Your task to perform on an android device: Go to CNN.com Image 0: 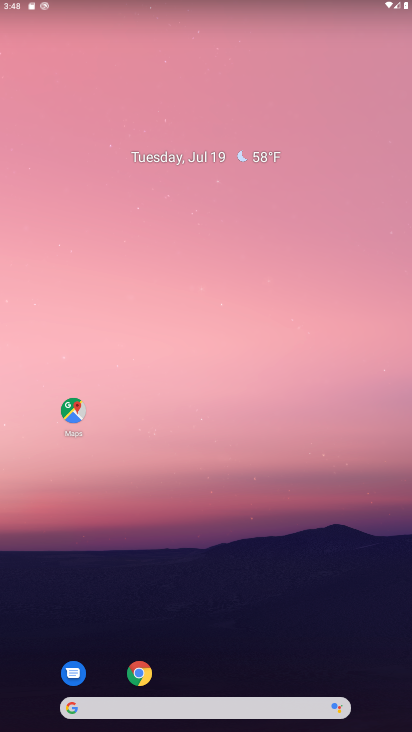
Step 0: drag from (209, 716) to (182, 22)
Your task to perform on an android device: Go to CNN.com Image 1: 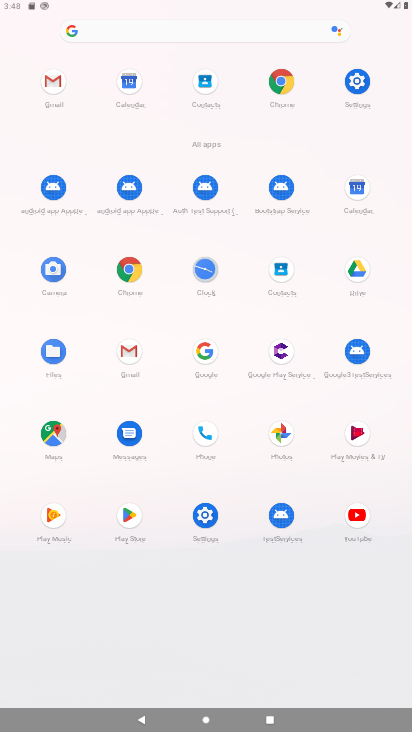
Step 1: click (132, 273)
Your task to perform on an android device: Go to CNN.com Image 2: 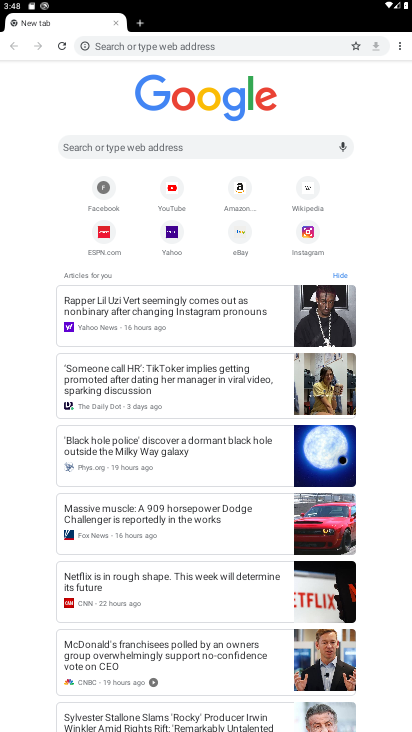
Step 2: type "cnn.com"
Your task to perform on an android device: Go to CNN.com Image 3: 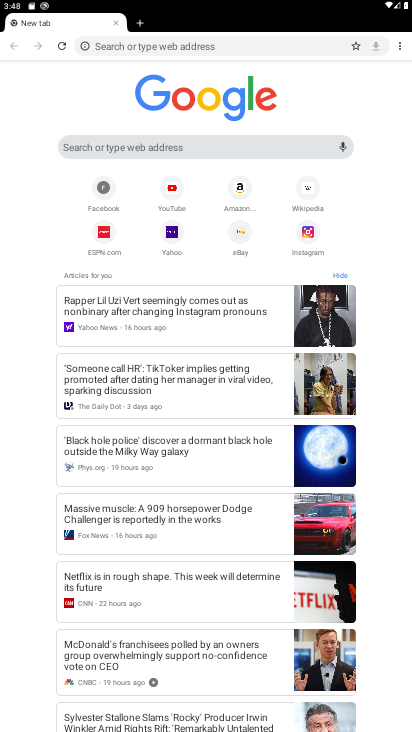
Step 3: click (188, 53)
Your task to perform on an android device: Go to CNN.com Image 4: 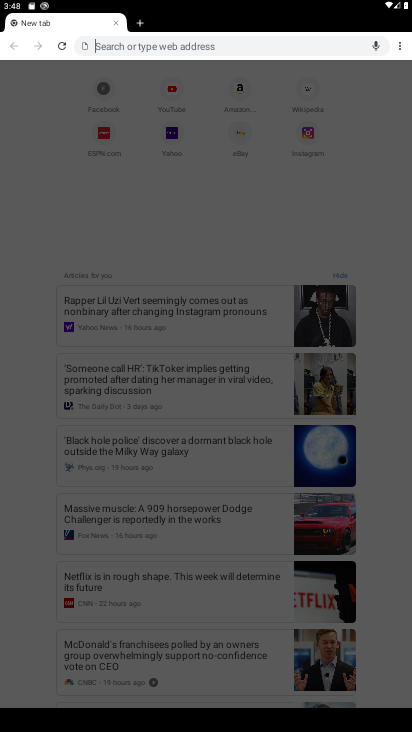
Step 4: type "cnn.com"
Your task to perform on an android device: Go to CNN.com Image 5: 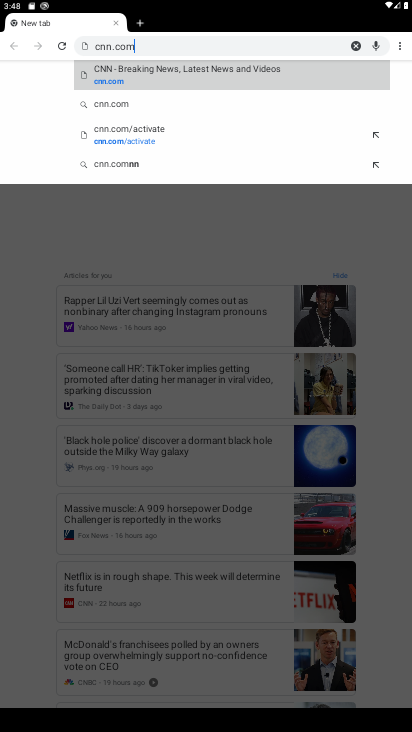
Step 5: click (212, 75)
Your task to perform on an android device: Go to CNN.com Image 6: 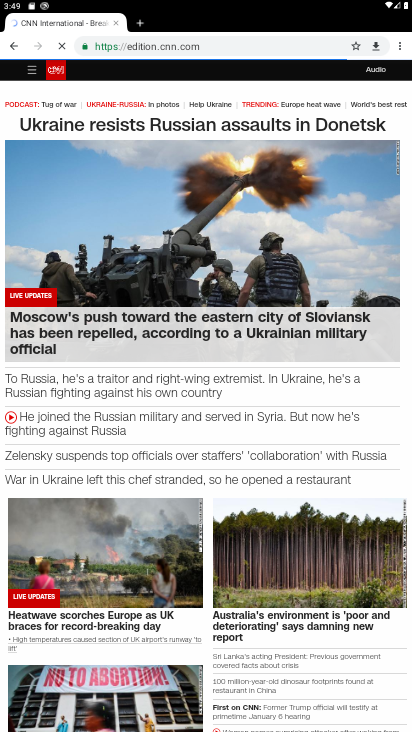
Step 6: task complete